Your task to perform on an android device: Play the last video I watched on Youtube Image 0: 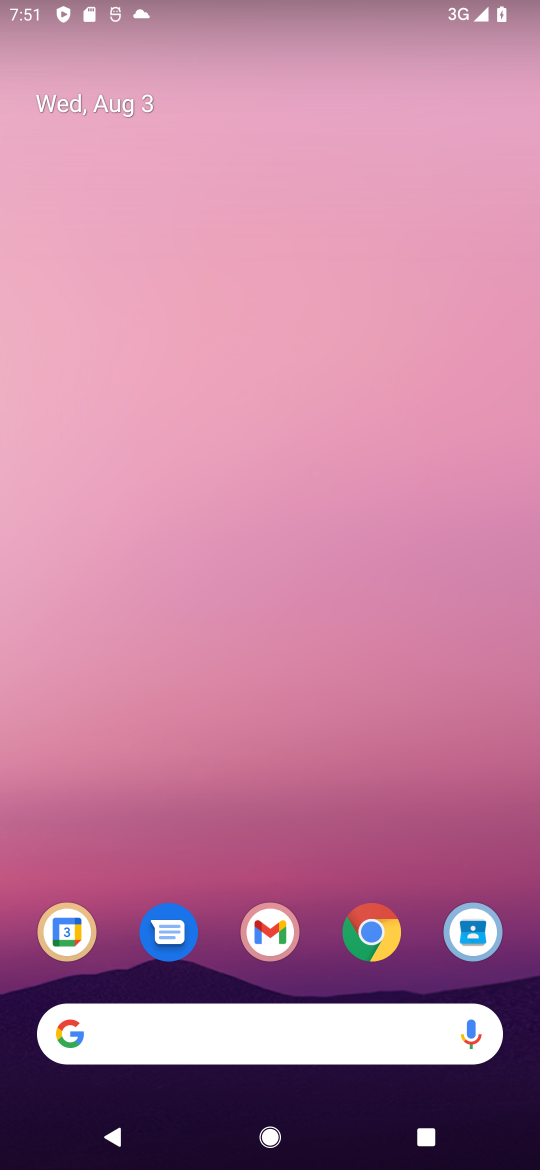
Step 0: click (462, 830)
Your task to perform on an android device: Play the last video I watched on Youtube Image 1: 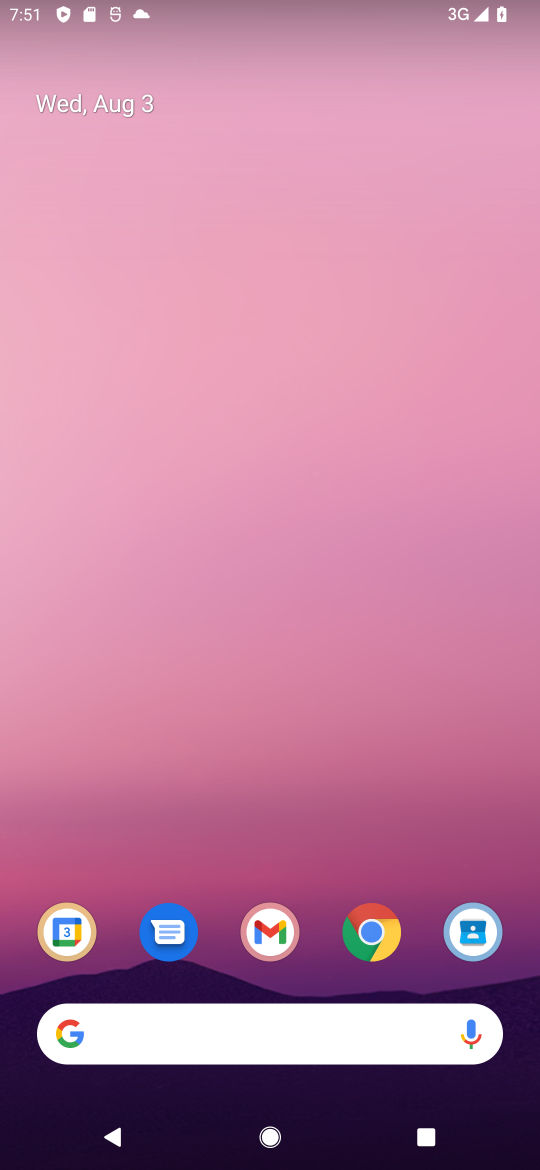
Step 1: drag from (347, 1120) to (390, 19)
Your task to perform on an android device: Play the last video I watched on Youtube Image 2: 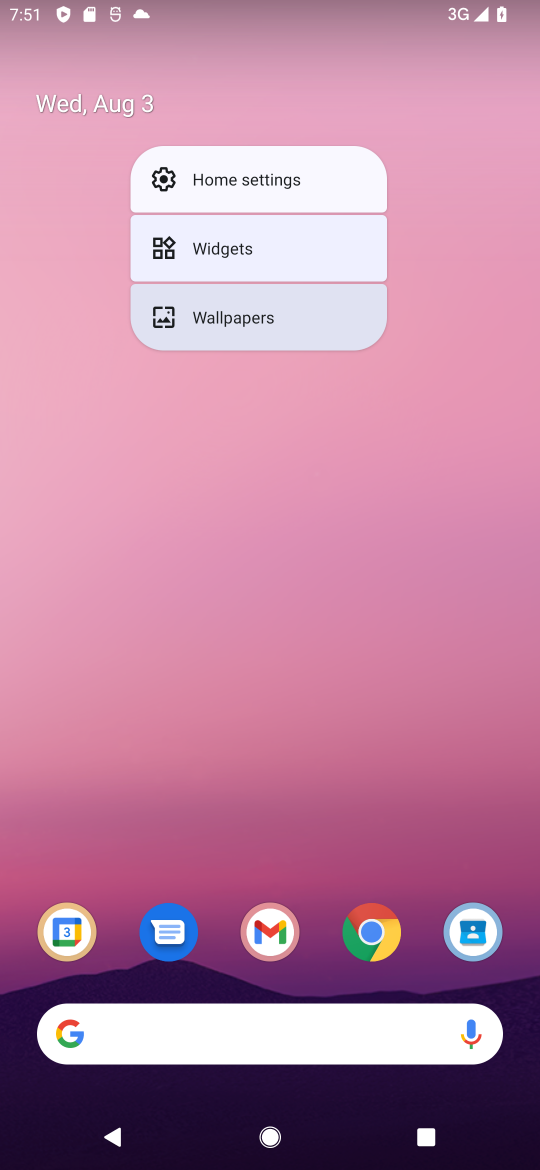
Step 2: drag from (483, 597) to (522, 428)
Your task to perform on an android device: Play the last video I watched on Youtube Image 3: 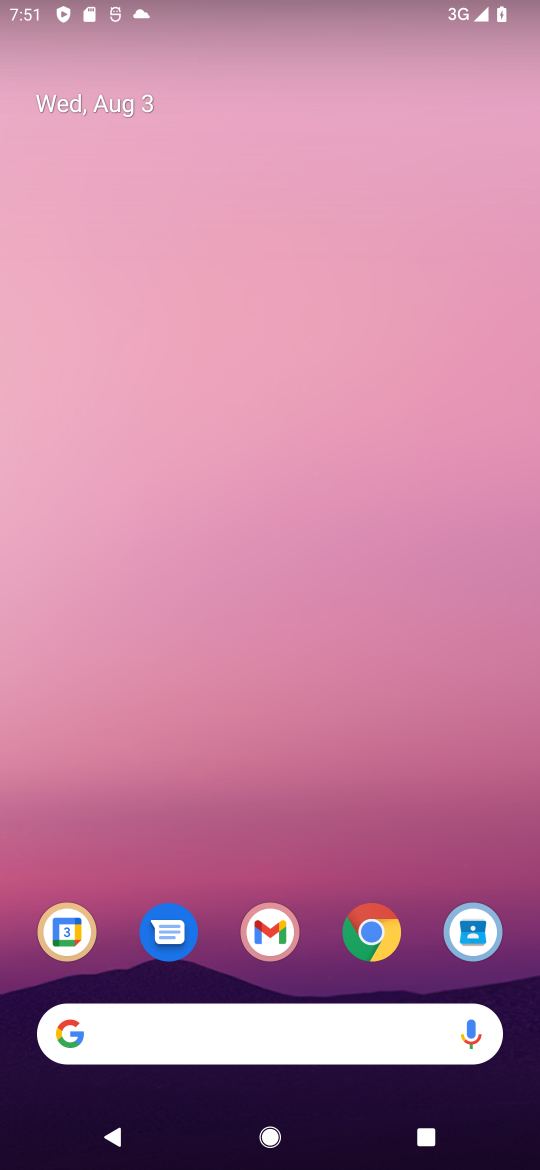
Step 3: drag from (184, 1064) to (337, 24)
Your task to perform on an android device: Play the last video I watched on Youtube Image 4: 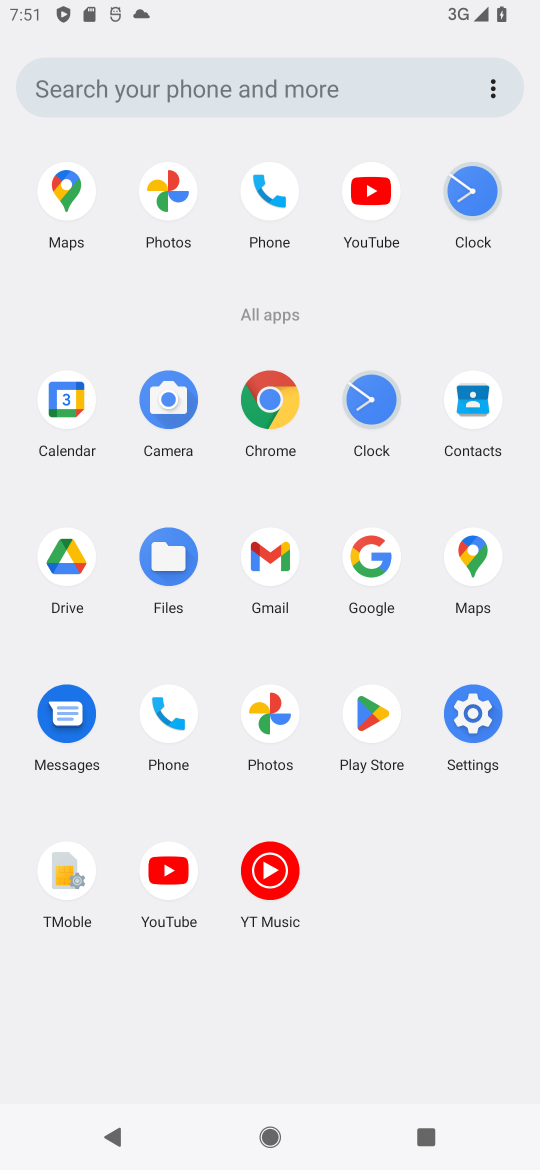
Step 4: click (177, 876)
Your task to perform on an android device: Play the last video I watched on Youtube Image 5: 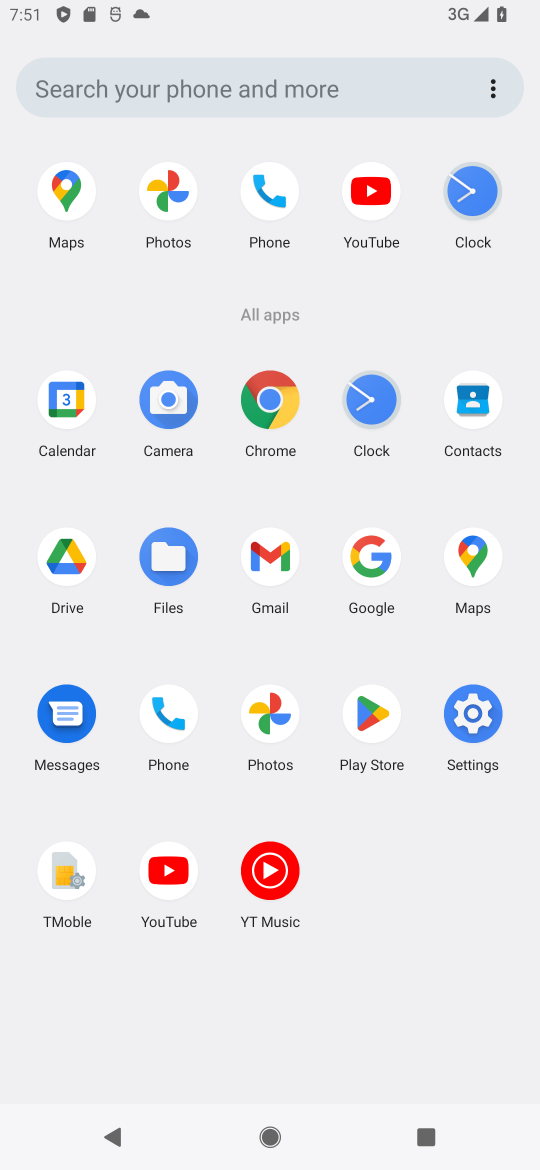
Step 5: click (177, 876)
Your task to perform on an android device: Play the last video I watched on Youtube Image 6: 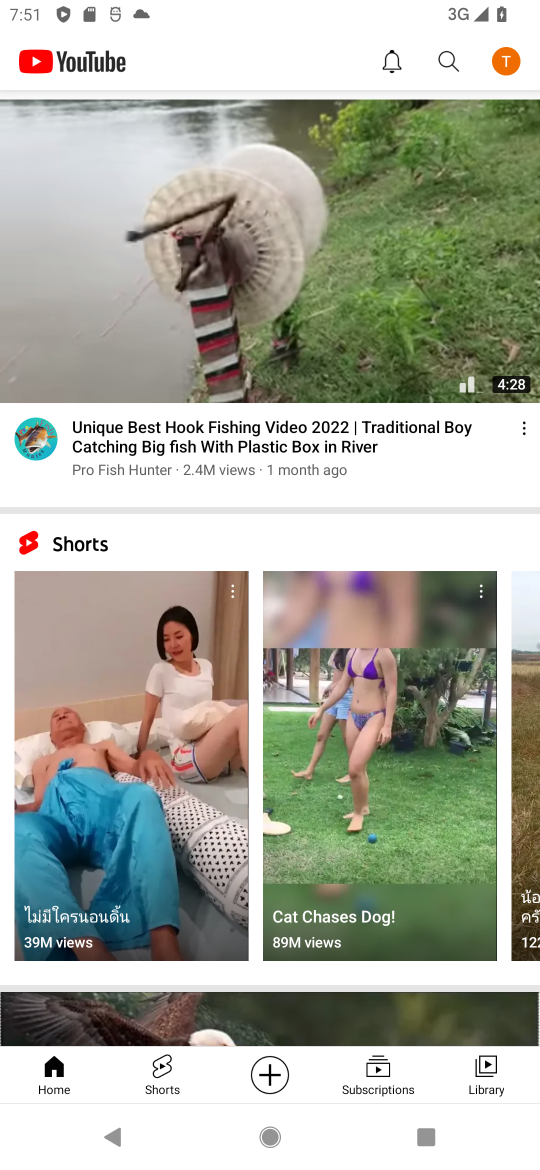
Step 6: click (489, 1063)
Your task to perform on an android device: Play the last video I watched on Youtube Image 7: 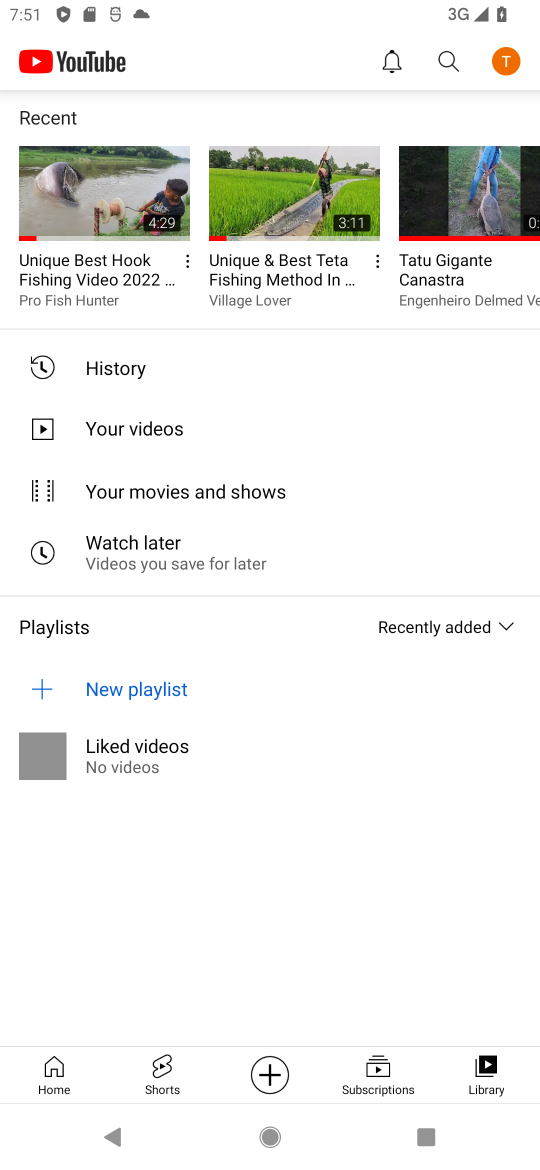
Step 7: click (108, 237)
Your task to perform on an android device: Play the last video I watched on Youtube Image 8: 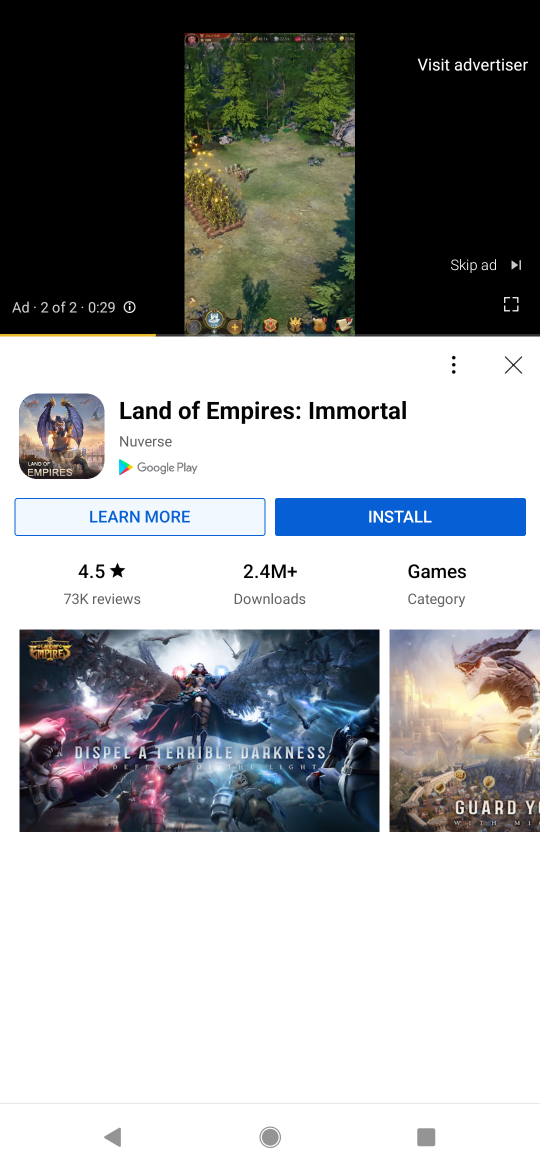
Step 8: task complete